Your task to perform on an android device: delete the emails in spam in the gmail app Image 0: 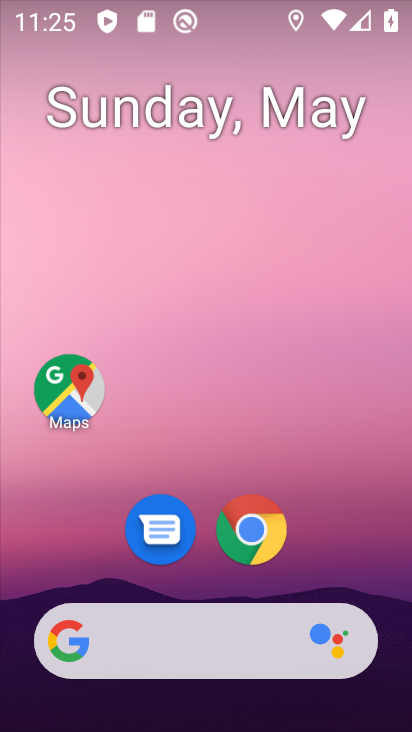
Step 0: drag from (378, 647) to (374, 0)
Your task to perform on an android device: delete the emails in spam in the gmail app Image 1: 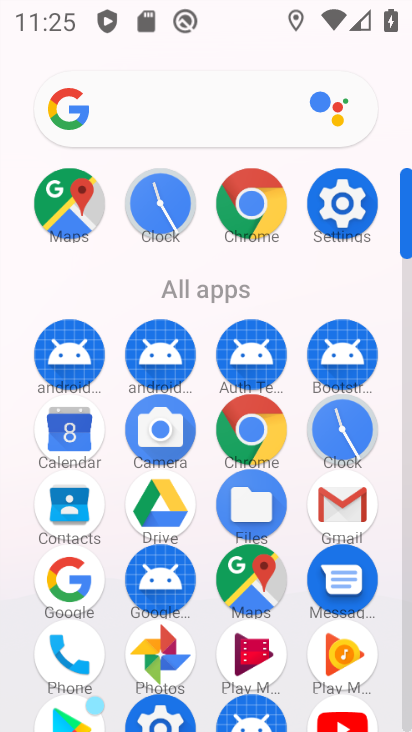
Step 1: click (344, 497)
Your task to perform on an android device: delete the emails in spam in the gmail app Image 2: 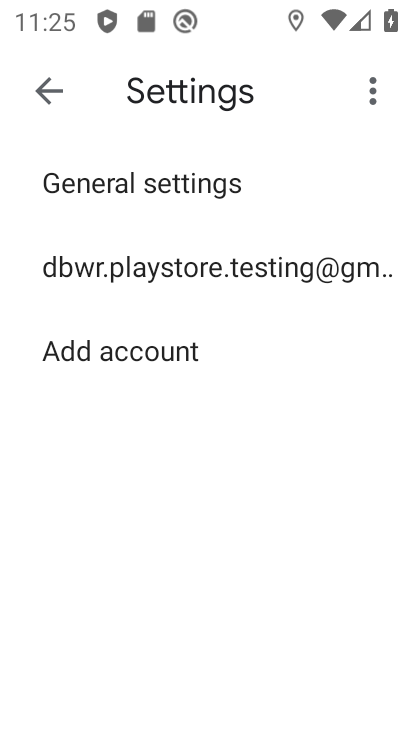
Step 2: press back button
Your task to perform on an android device: delete the emails in spam in the gmail app Image 3: 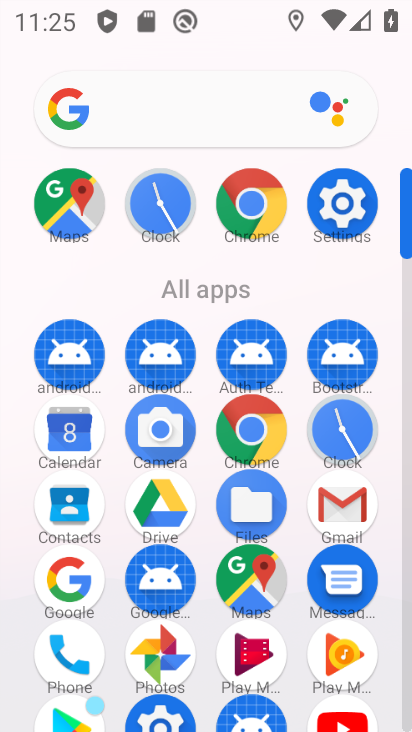
Step 3: click (357, 510)
Your task to perform on an android device: delete the emails in spam in the gmail app Image 4: 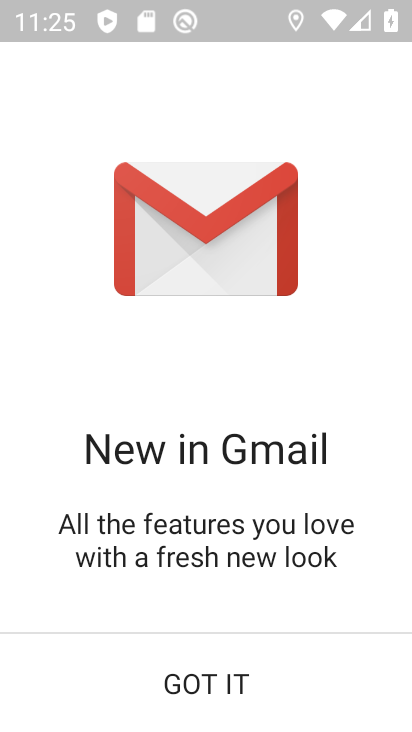
Step 4: click (218, 686)
Your task to perform on an android device: delete the emails in spam in the gmail app Image 5: 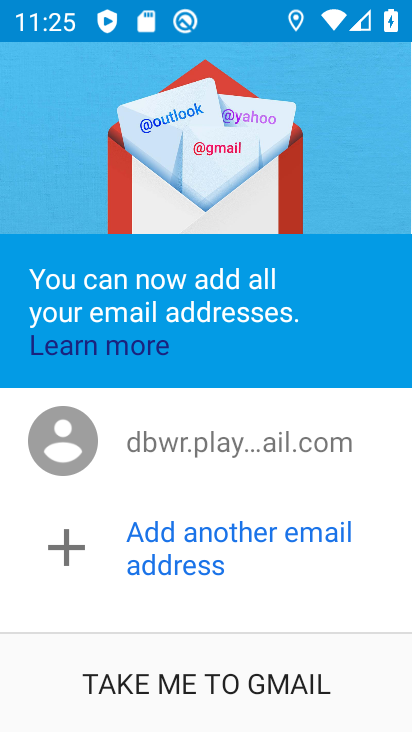
Step 5: click (219, 687)
Your task to perform on an android device: delete the emails in spam in the gmail app Image 6: 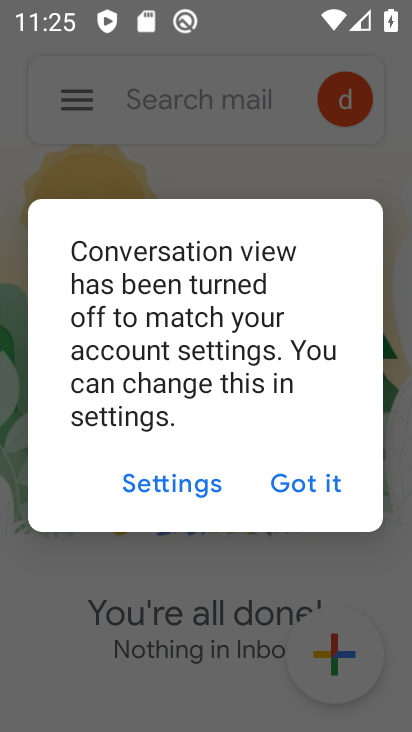
Step 6: click (315, 482)
Your task to perform on an android device: delete the emails in spam in the gmail app Image 7: 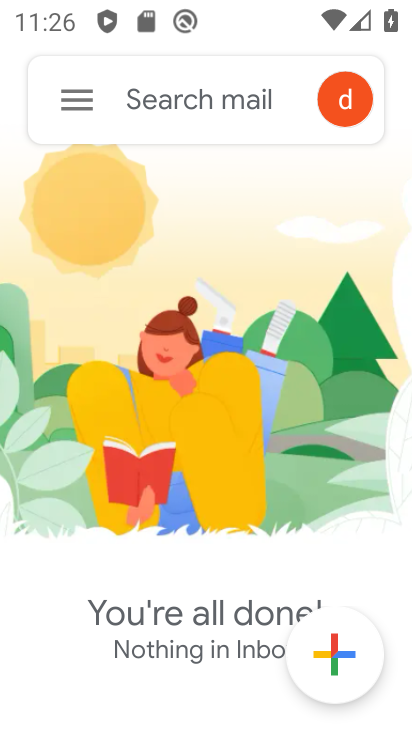
Step 7: drag from (78, 98) to (104, 310)
Your task to perform on an android device: delete the emails in spam in the gmail app Image 8: 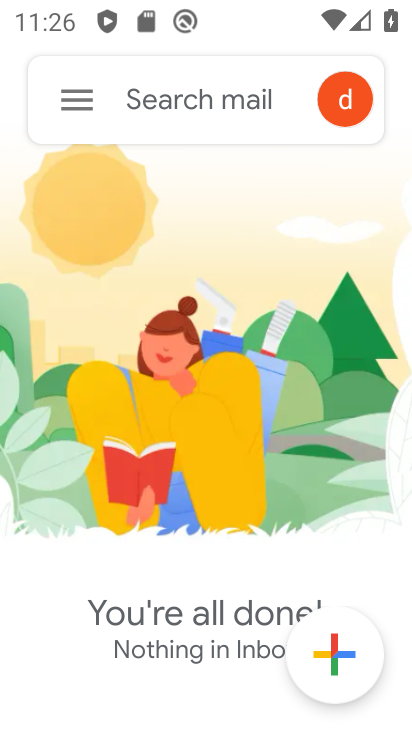
Step 8: click (83, 112)
Your task to perform on an android device: delete the emails in spam in the gmail app Image 9: 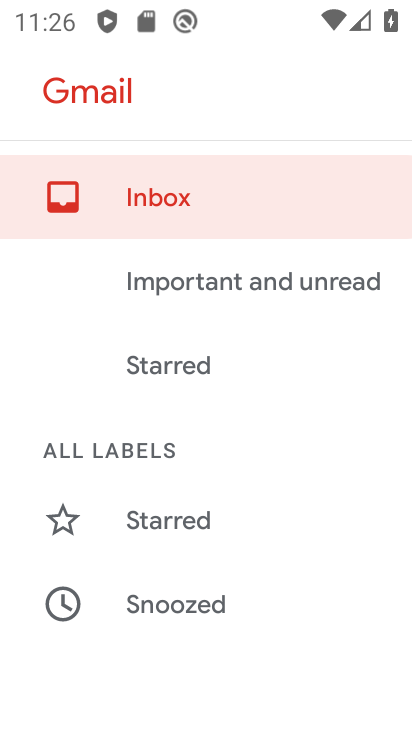
Step 9: drag from (275, 623) to (294, 159)
Your task to perform on an android device: delete the emails in spam in the gmail app Image 10: 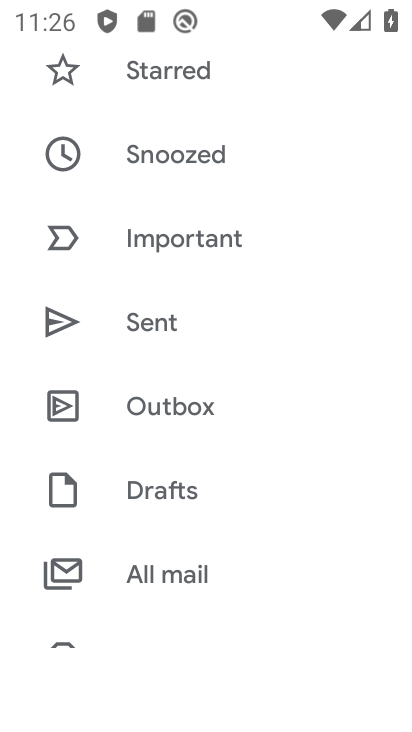
Step 10: drag from (176, 634) to (181, 215)
Your task to perform on an android device: delete the emails in spam in the gmail app Image 11: 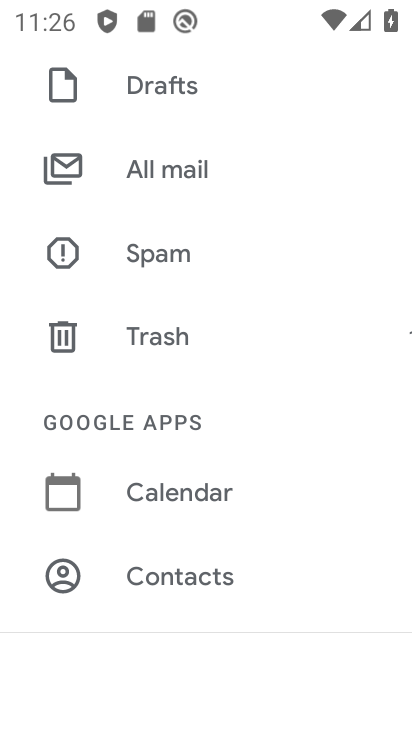
Step 11: click (185, 261)
Your task to perform on an android device: delete the emails in spam in the gmail app Image 12: 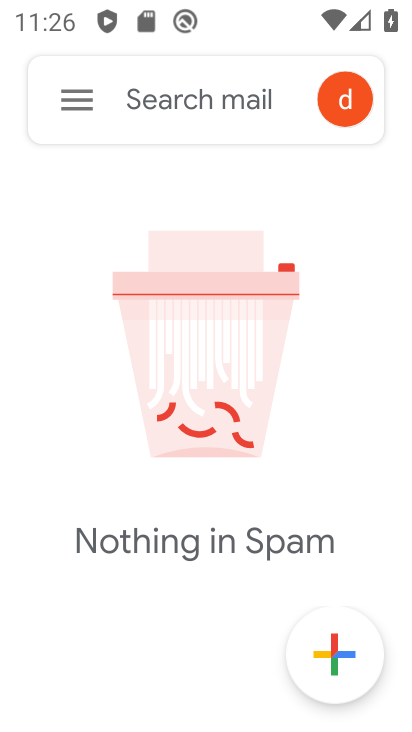
Step 12: task complete